Your task to perform on an android device: Open calendar and show me the second week of next month Image 0: 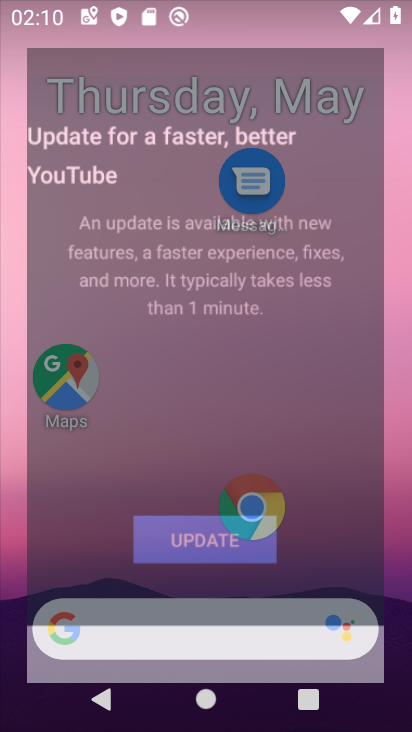
Step 0: drag from (348, 575) to (248, 74)
Your task to perform on an android device: Open calendar and show me the second week of next month Image 1: 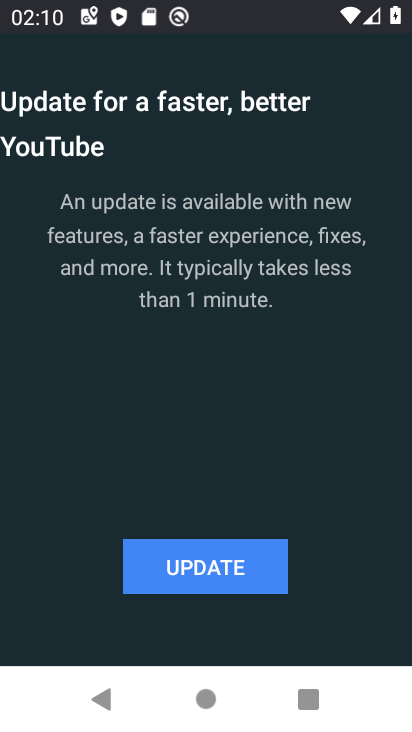
Step 1: press home button
Your task to perform on an android device: Open calendar and show me the second week of next month Image 2: 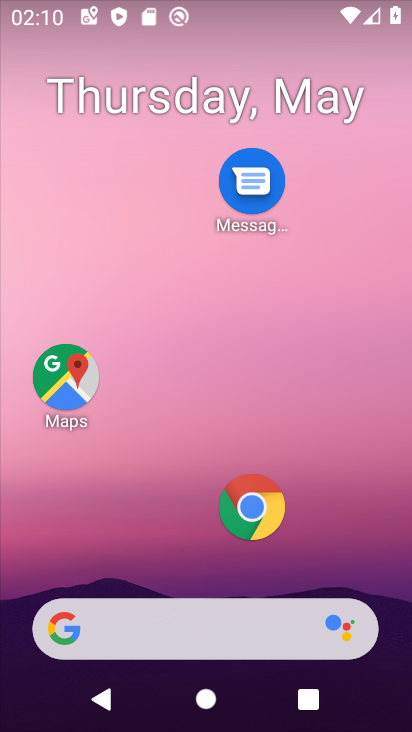
Step 2: drag from (262, 642) to (302, 0)
Your task to perform on an android device: Open calendar and show me the second week of next month Image 3: 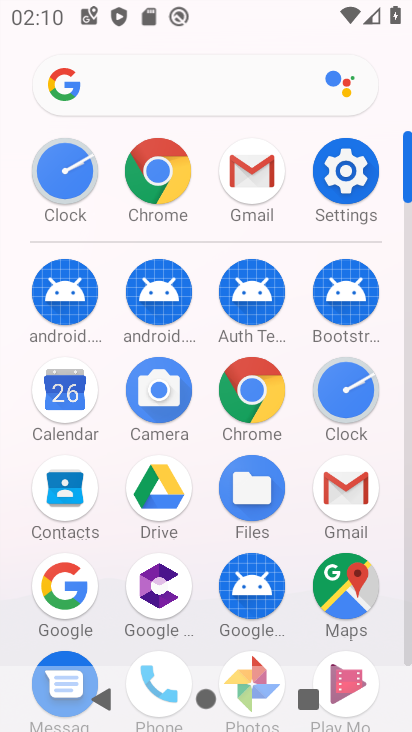
Step 3: click (20, 394)
Your task to perform on an android device: Open calendar and show me the second week of next month Image 4: 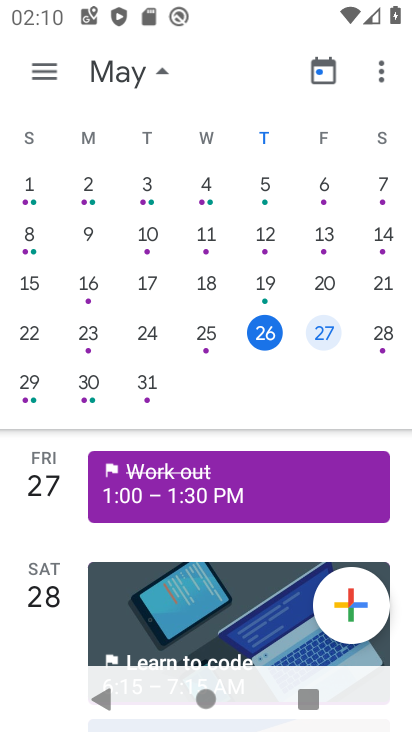
Step 4: drag from (387, 269) to (1, 294)
Your task to perform on an android device: Open calendar and show me the second week of next month Image 5: 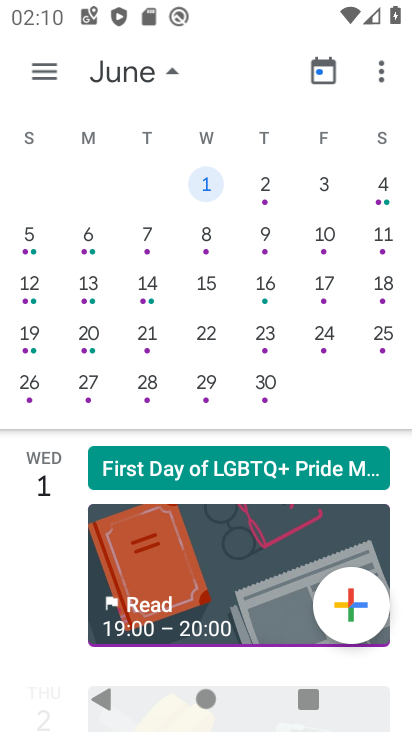
Step 5: click (244, 237)
Your task to perform on an android device: Open calendar and show me the second week of next month Image 6: 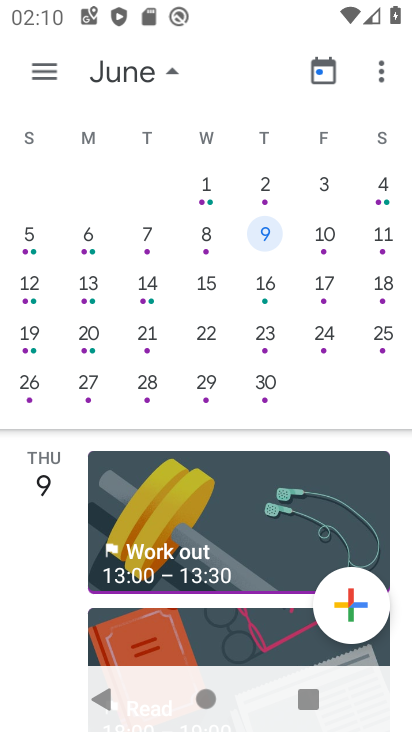
Step 6: task complete